Your task to perform on an android device: Is it going to rain this weekend? Image 0: 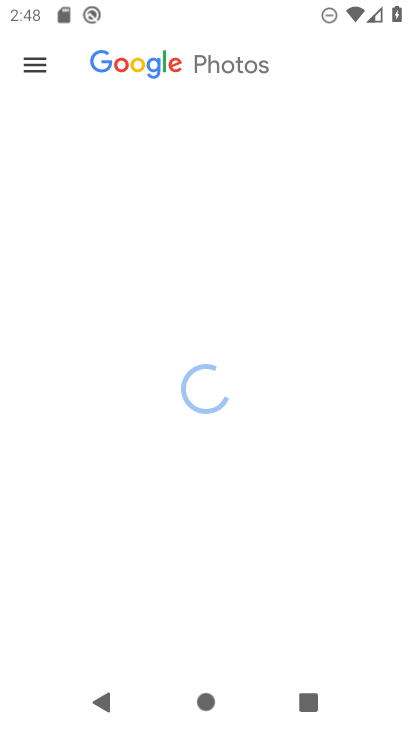
Step 0: press back button
Your task to perform on an android device: Is it going to rain this weekend? Image 1: 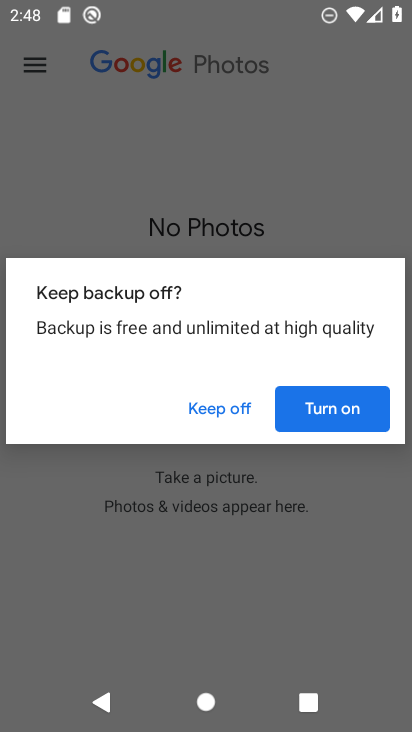
Step 1: press home button
Your task to perform on an android device: Is it going to rain this weekend? Image 2: 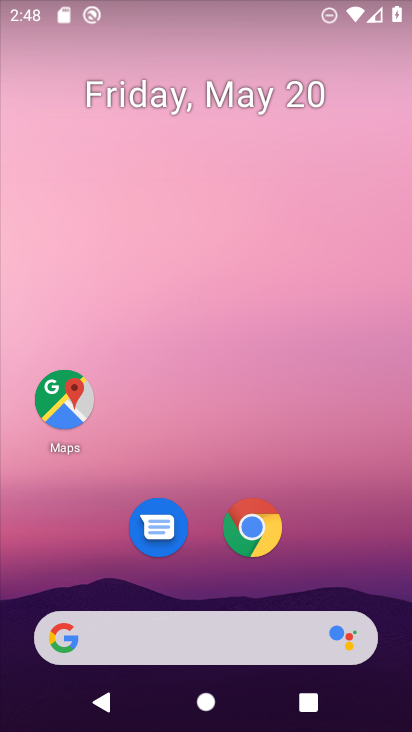
Step 2: drag from (143, 509) to (251, 53)
Your task to perform on an android device: Is it going to rain this weekend? Image 3: 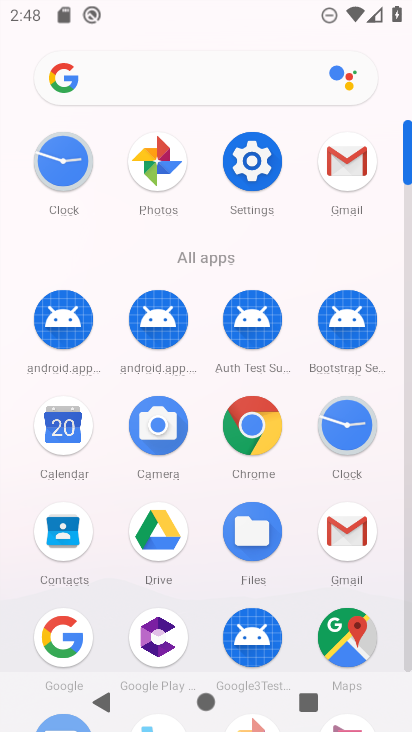
Step 3: click (146, 76)
Your task to perform on an android device: Is it going to rain this weekend? Image 4: 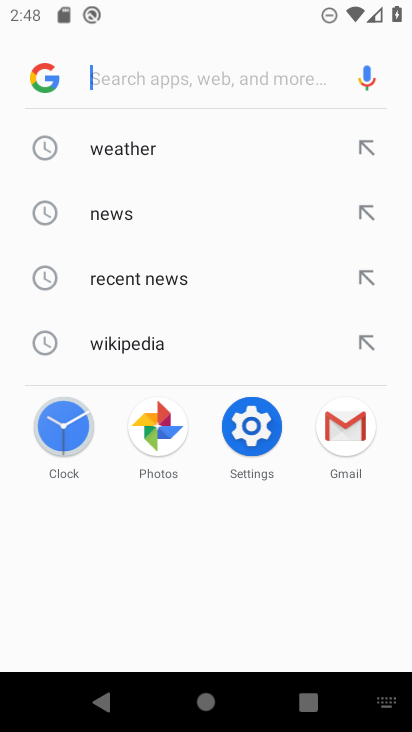
Step 4: click (106, 164)
Your task to perform on an android device: Is it going to rain this weekend? Image 5: 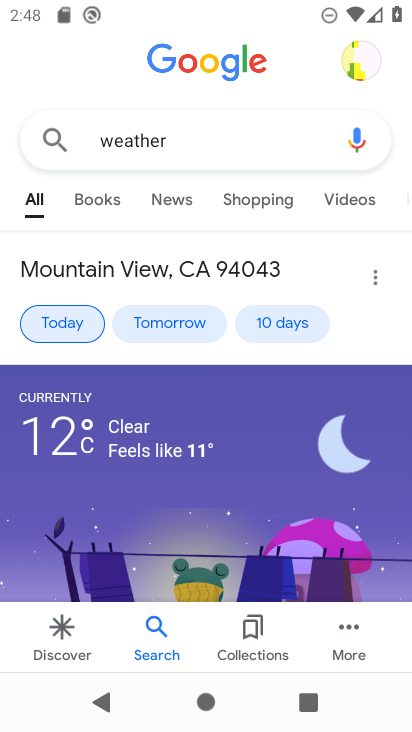
Step 5: click (283, 315)
Your task to perform on an android device: Is it going to rain this weekend? Image 6: 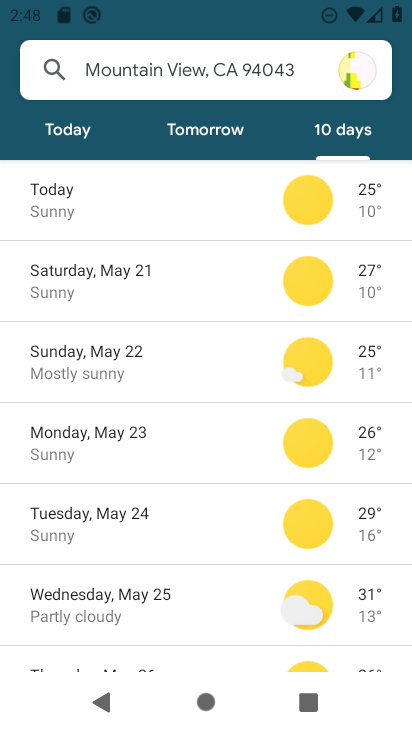
Step 6: task complete